Your task to perform on an android device: toggle pop-ups in chrome Image 0: 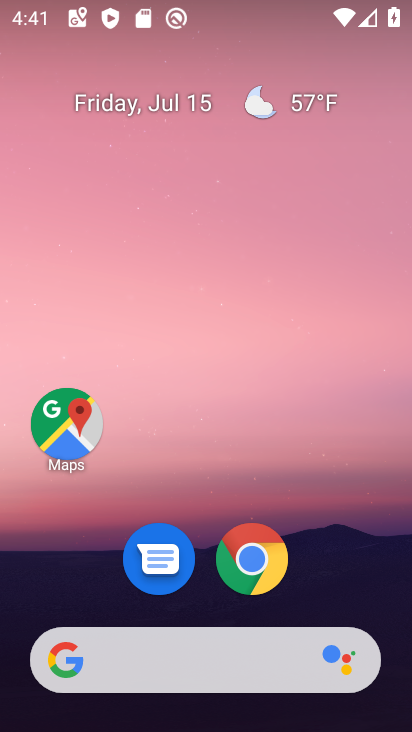
Step 0: click (246, 558)
Your task to perform on an android device: toggle pop-ups in chrome Image 1: 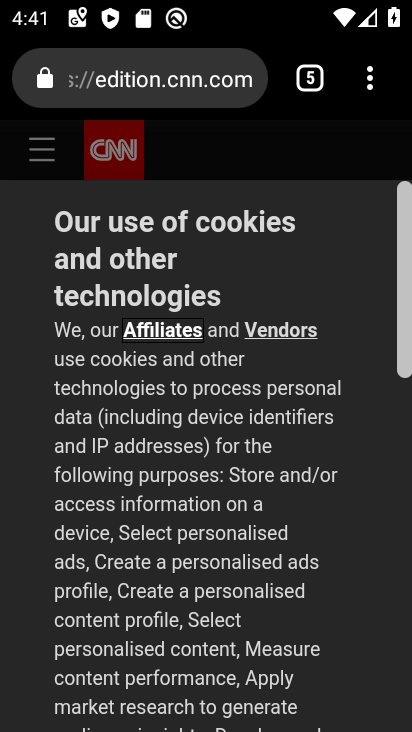
Step 1: drag from (369, 74) to (113, 608)
Your task to perform on an android device: toggle pop-ups in chrome Image 2: 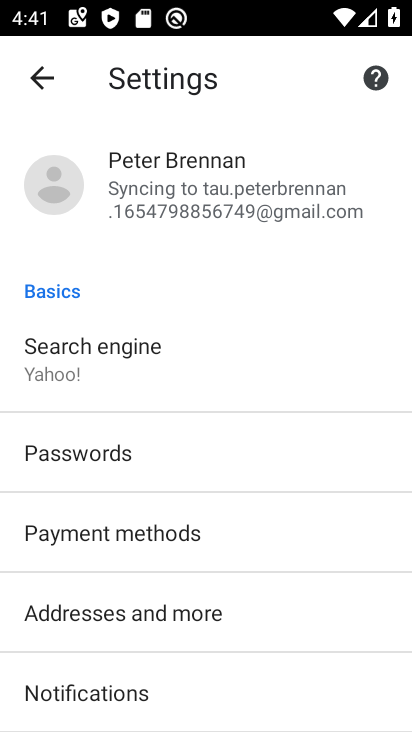
Step 2: drag from (130, 620) to (198, 162)
Your task to perform on an android device: toggle pop-ups in chrome Image 3: 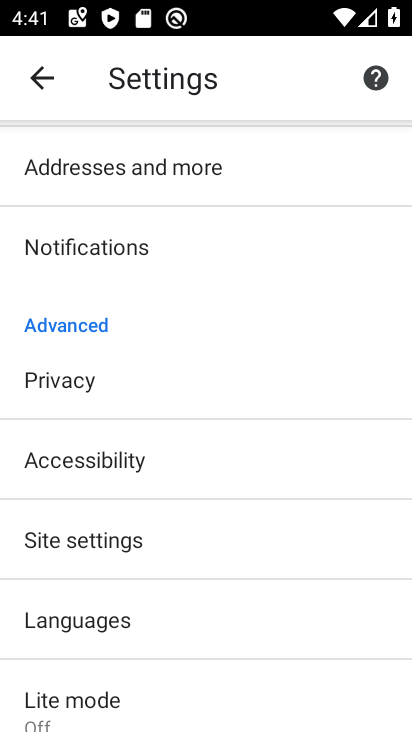
Step 3: click (81, 543)
Your task to perform on an android device: toggle pop-ups in chrome Image 4: 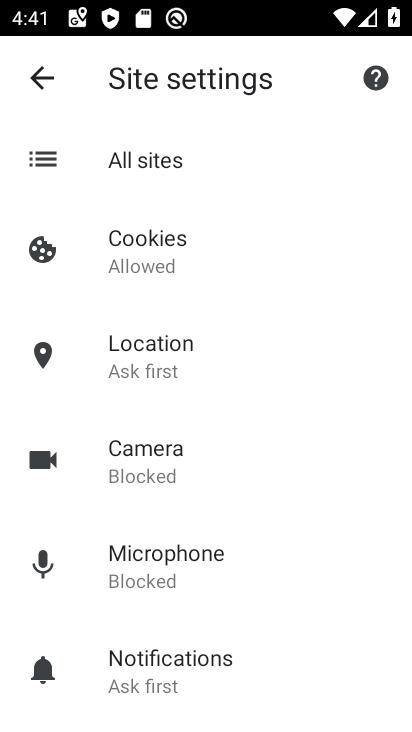
Step 4: drag from (157, 650) to (247, 116)
Your task to perform on an android device: toggle pop-ups in chrome Image 5: 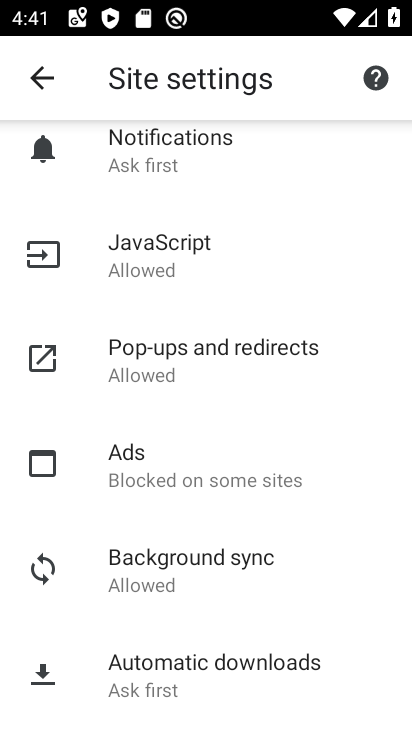
Step 5: click (186, 354)
Your task to perform on an android device: toggle pop-ups in chrome Image 6: 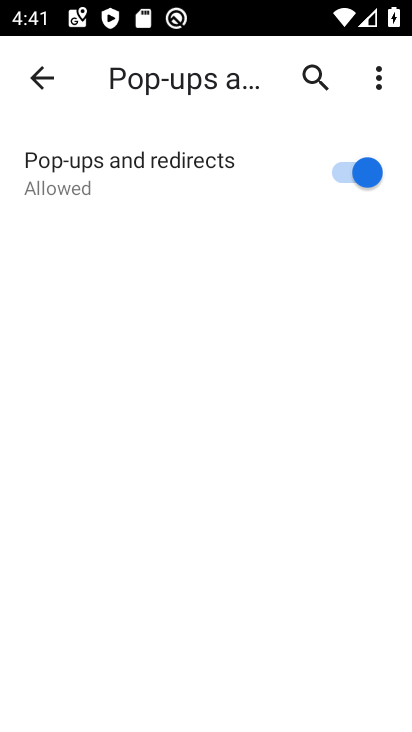
Step 6: click (371, 175)
Your task to perform on an android device: toggle pop-ups in chrome Image 7: 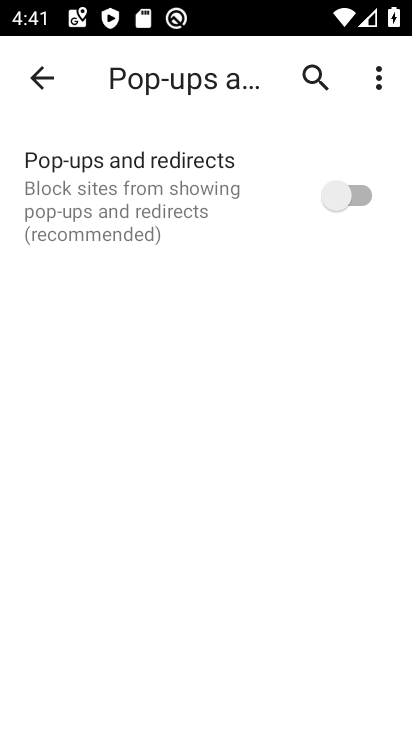
Step 7: task complete